Your task to perform on an android device: Open Amazon Image 0: 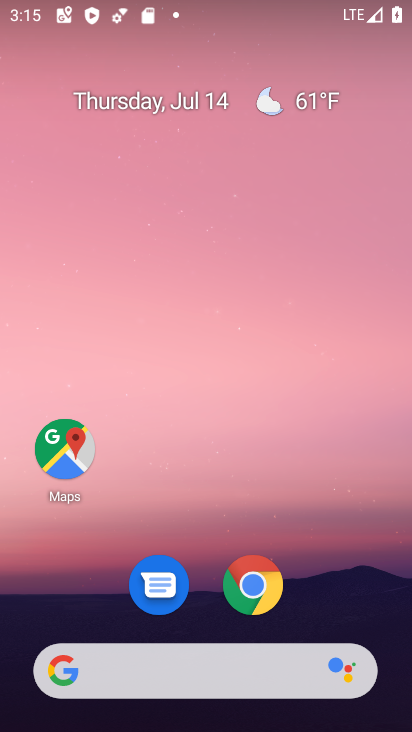
Step 0: click (264, 582)
Your task to perform on an android device: Open Amazon Image 1: 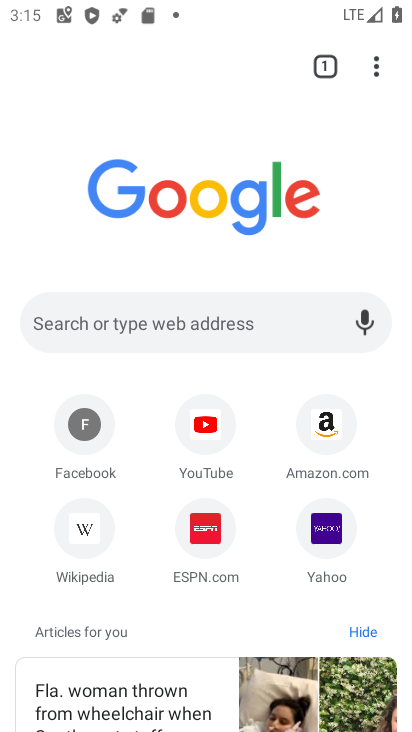
Step 1: click (328, 425)
Your task to perform on an android device: Open Amazon Image 2: 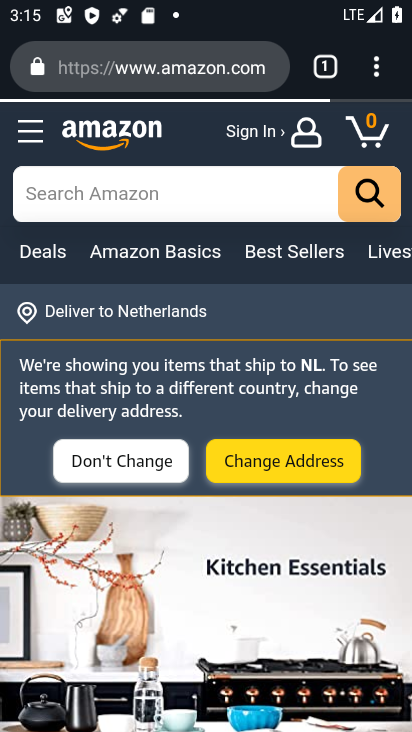
Step 2: task complete